Your task to perform on an android device: Open the calendar app, open the side menu, and click the "Day" option Image 0: 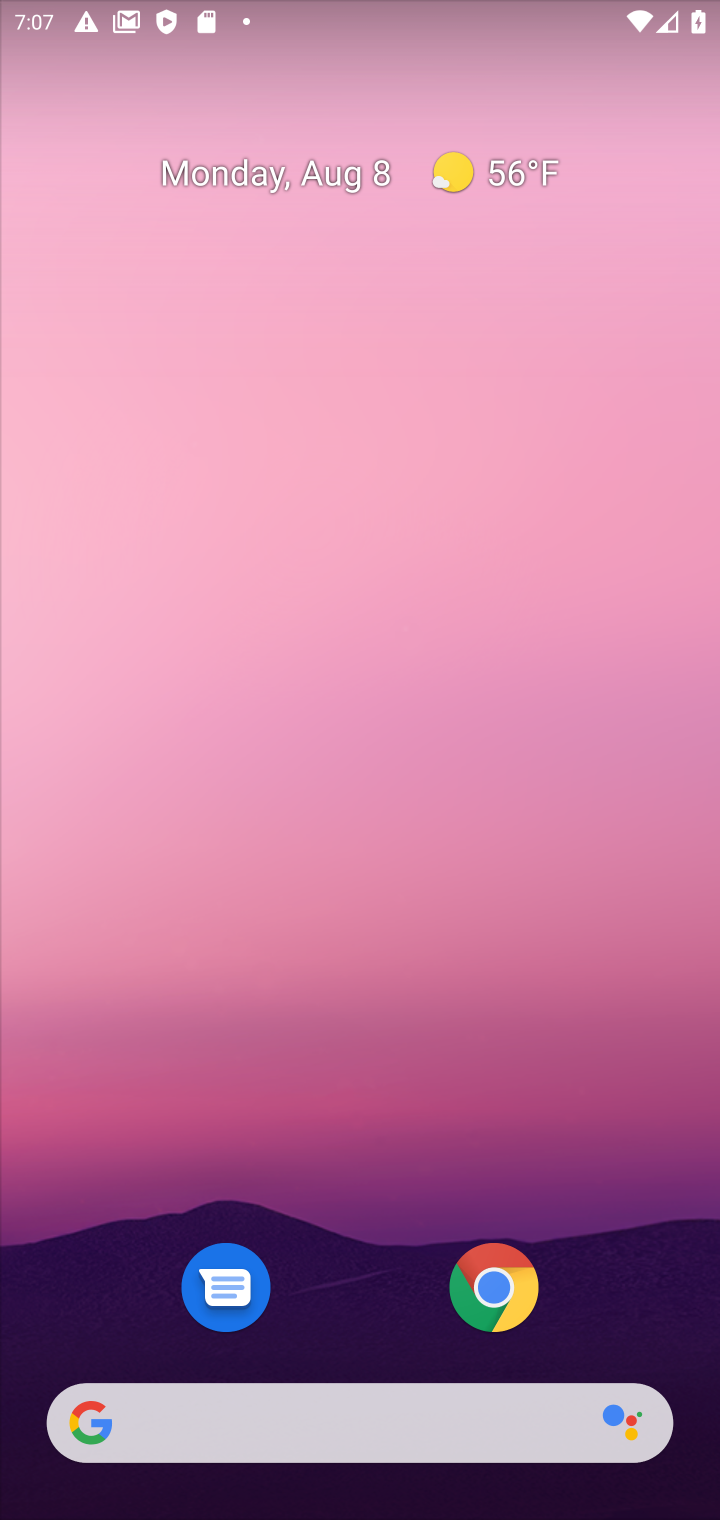
Step 0: drag from (418, 947) to (403, 0)
Your task to perform on an android device: Open the calendar app, open the side menu, and click the "Day" option Image 1: 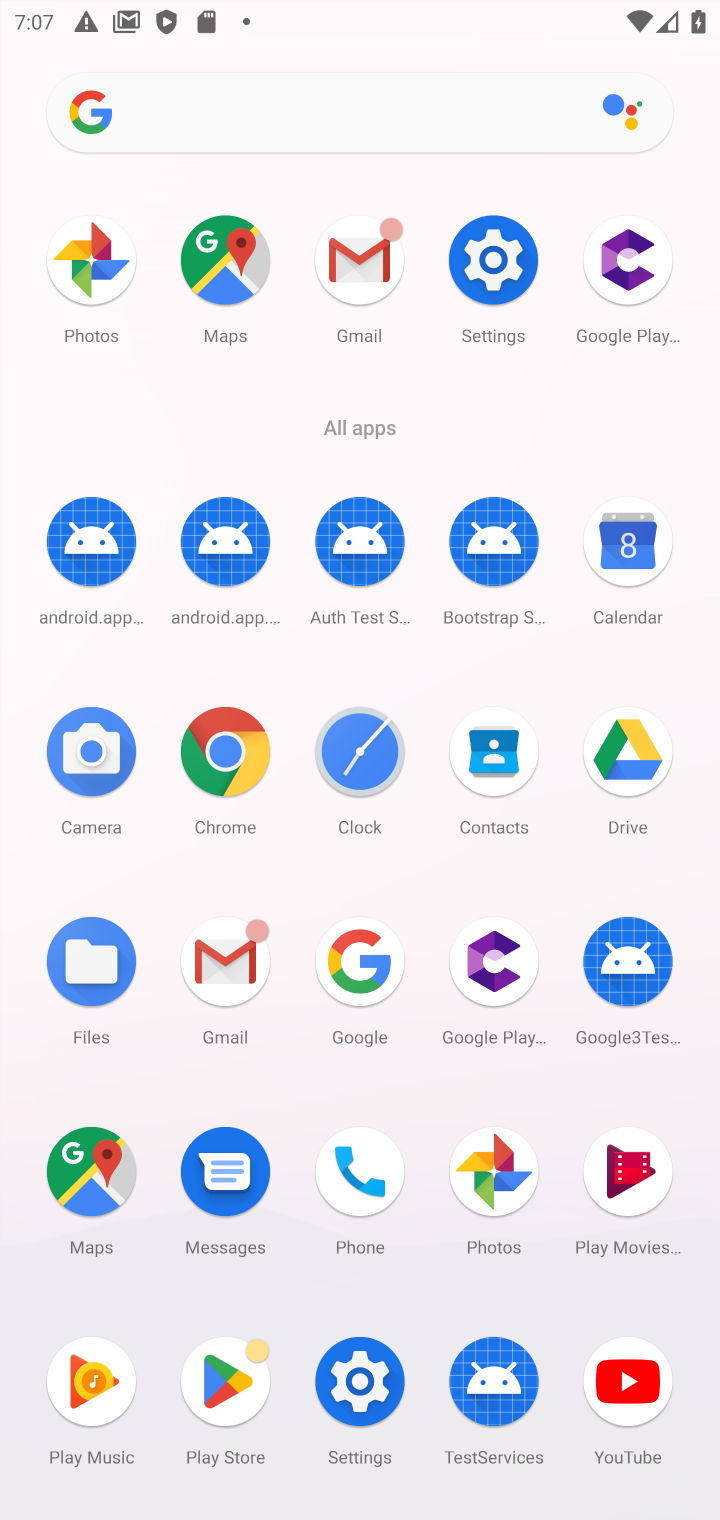
Step 1: click (629, 582)
Your task to perform on an android device: Open the calendar app, open the side menu, and click the "Day" option Image 2: 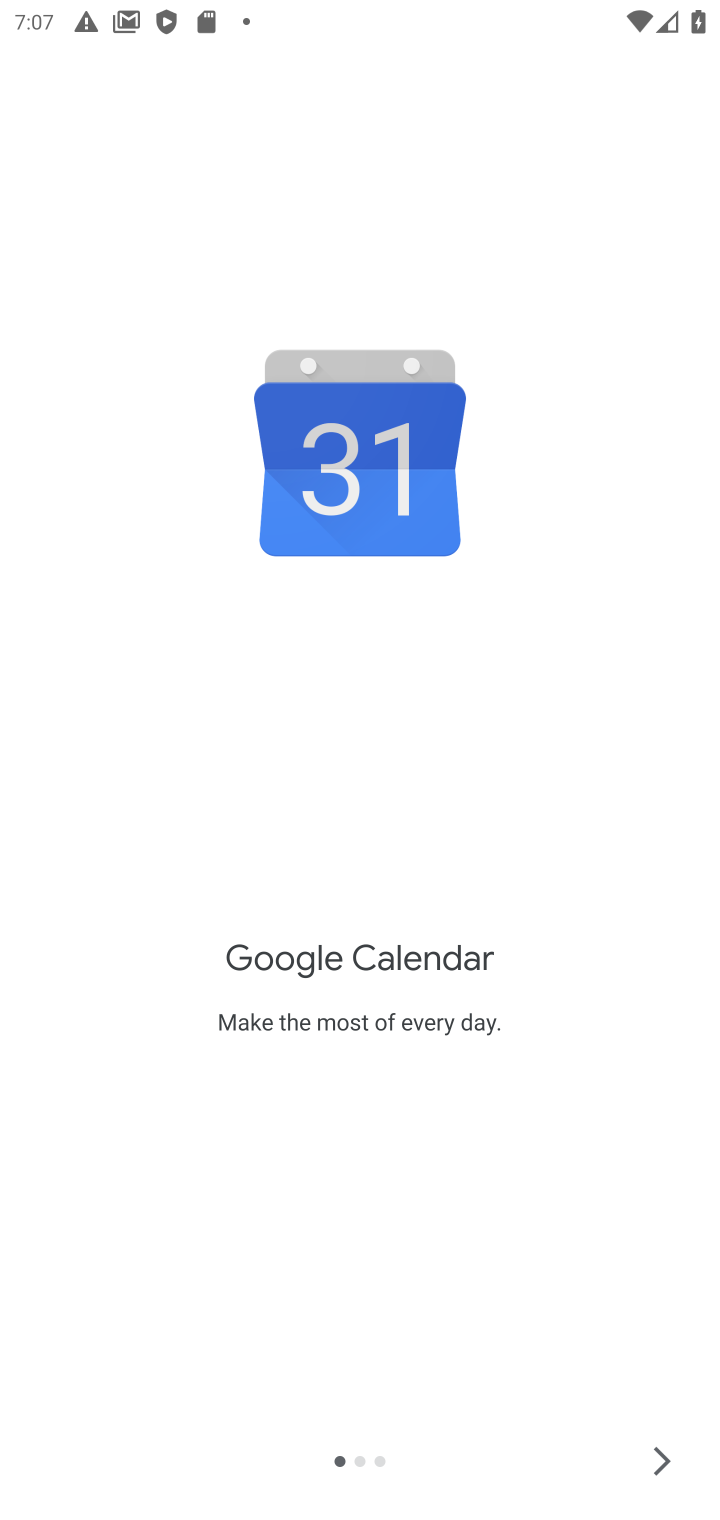
Step 2: click (661, 1472)
Your task to perform on an android device: Open the calendar app, open the side menu, and click the "Day" option Image 3: 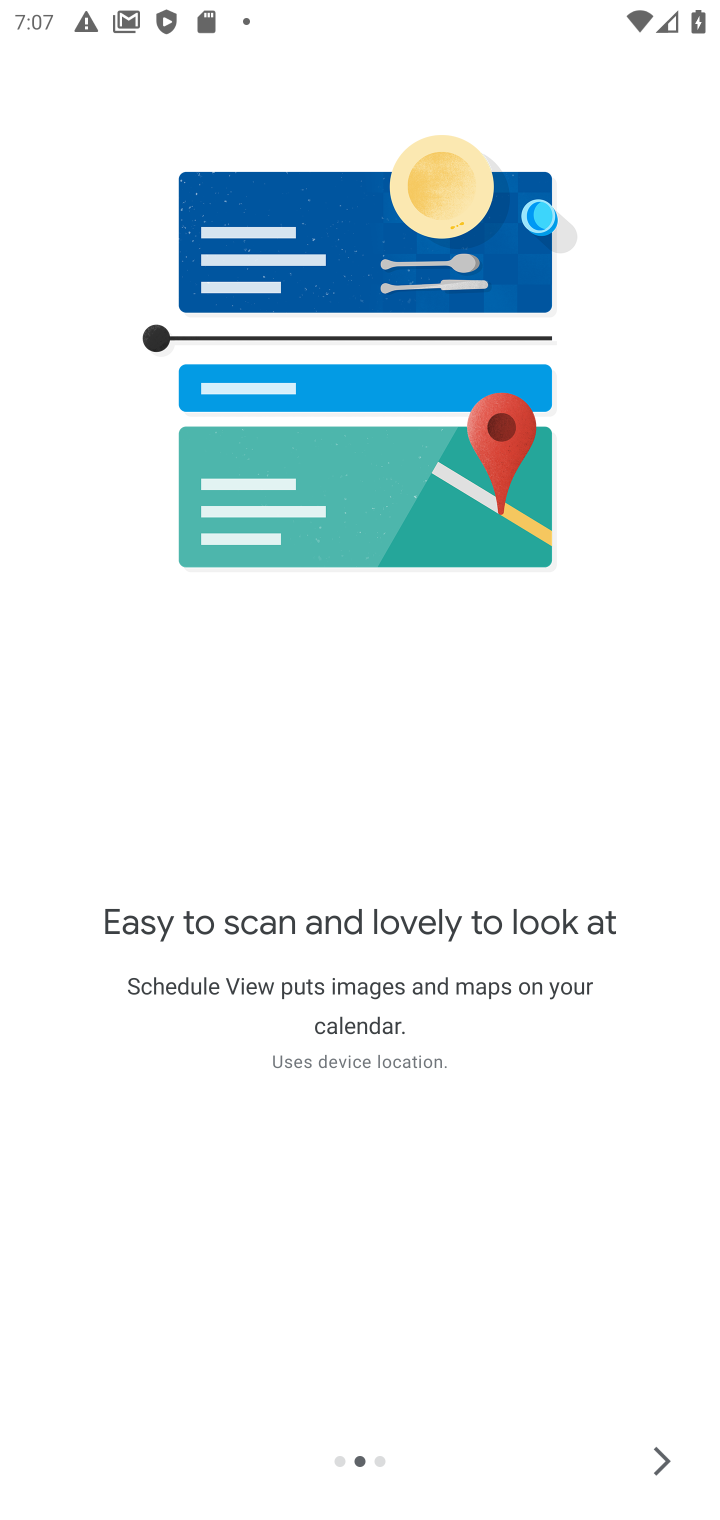
Step 3: click (661, 1472)
Your task to perform on an android device: Open the calendar app, open the side menu, and click the "Day" option Image 4: 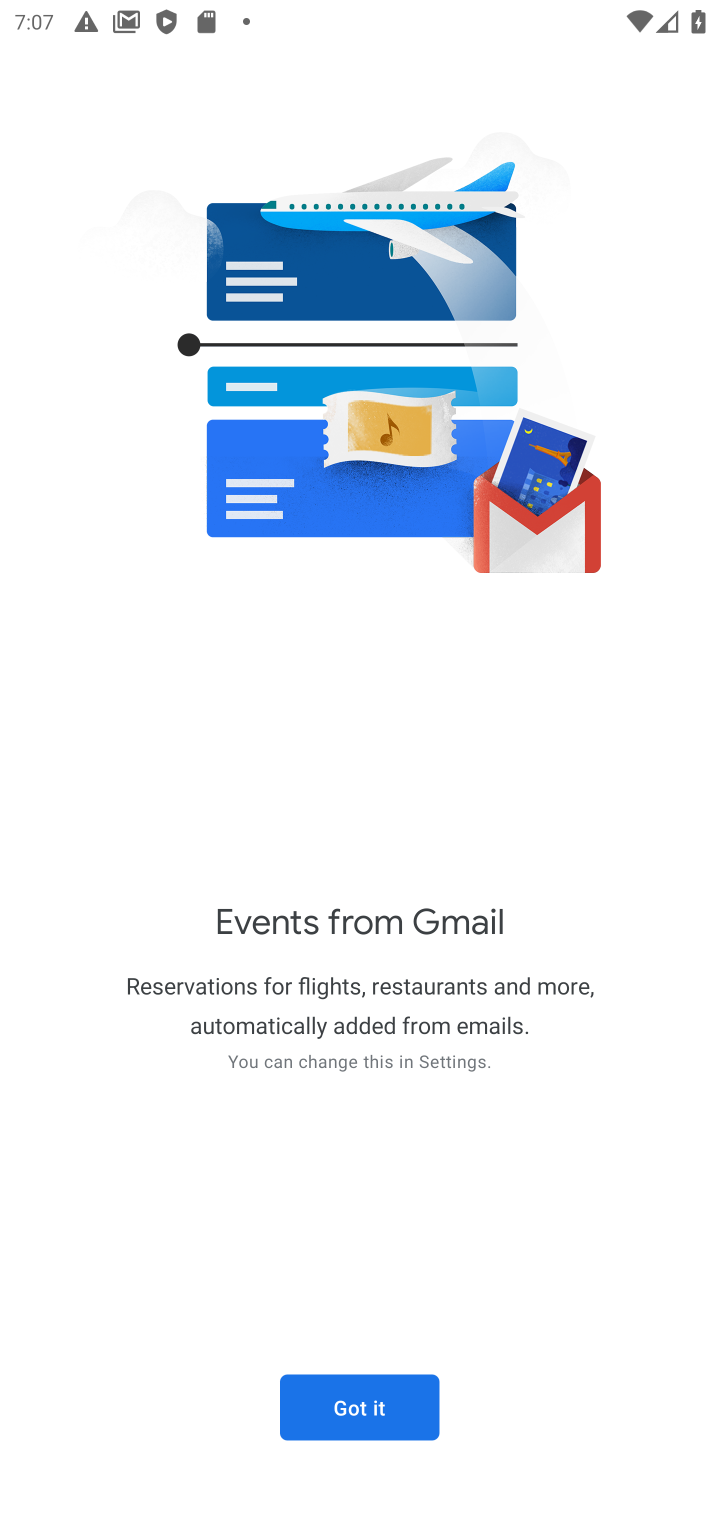
Step 4: click (661, 1472)
Your task to perform on an android device: Open the calendar app, open the side menu, and click the "Day" option Image 5: 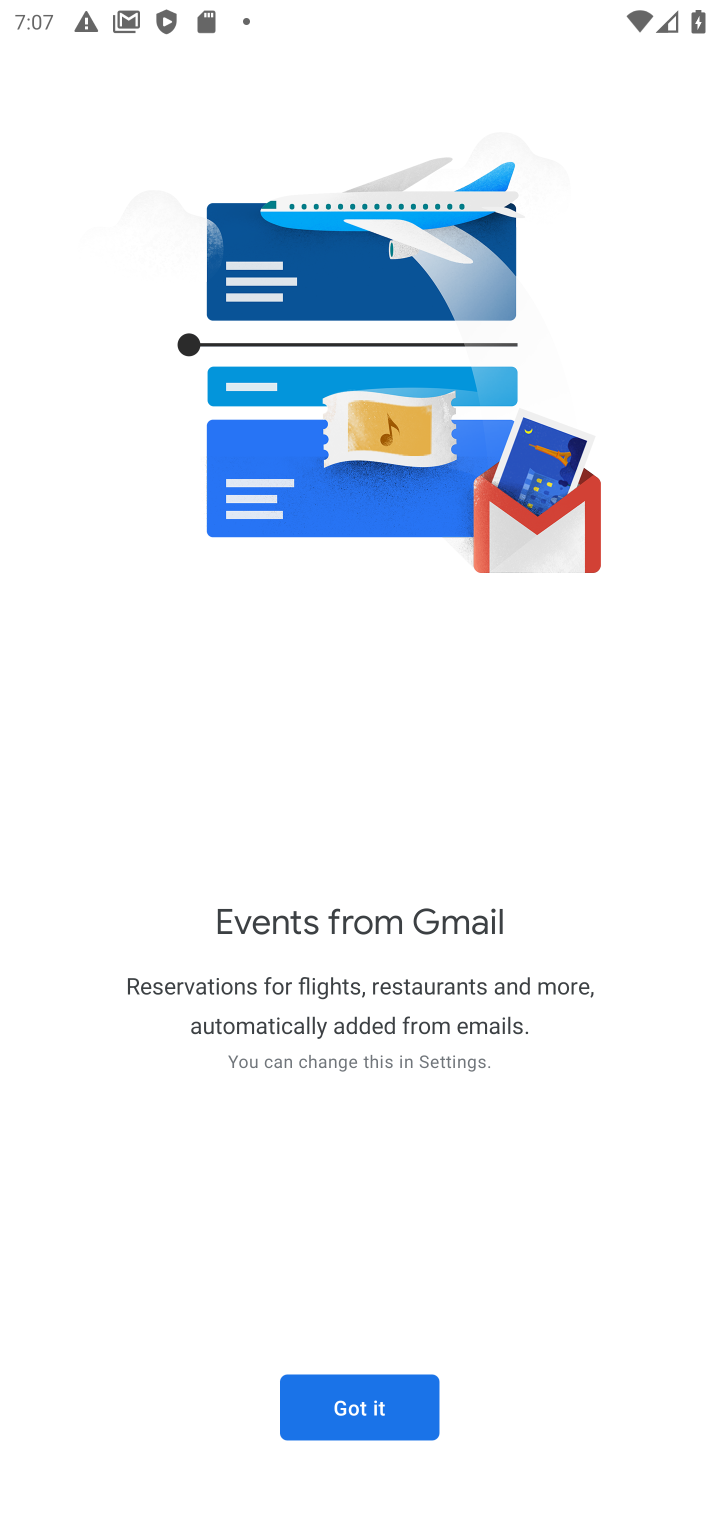
Step 5: click (334, 1400)
Your task to perform on an android device: Open the calendar app, open the side menu, and click the "Day" option Image 6: 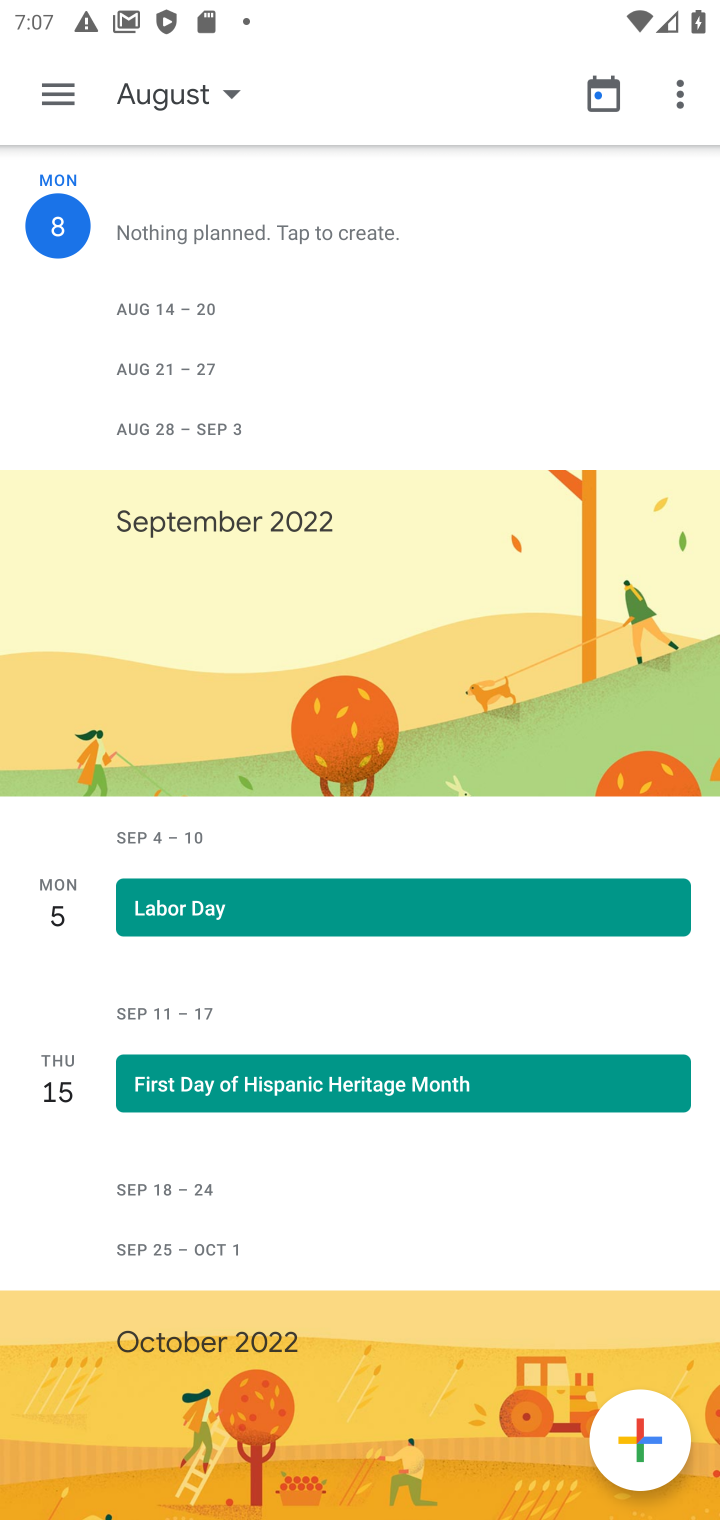
Step 6: task complete